Your task to perform on an android device: turn on javascript in the chrome app Image 0: 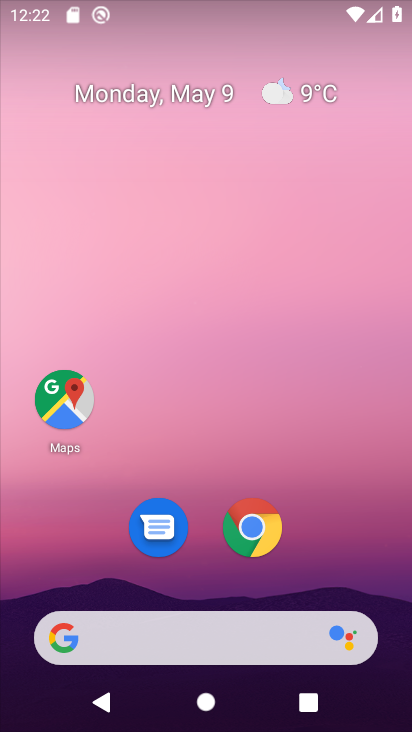
Step 0: click (260, 533)
Your task to perform on an android device: turn on javascript in the chrome app Image 1: 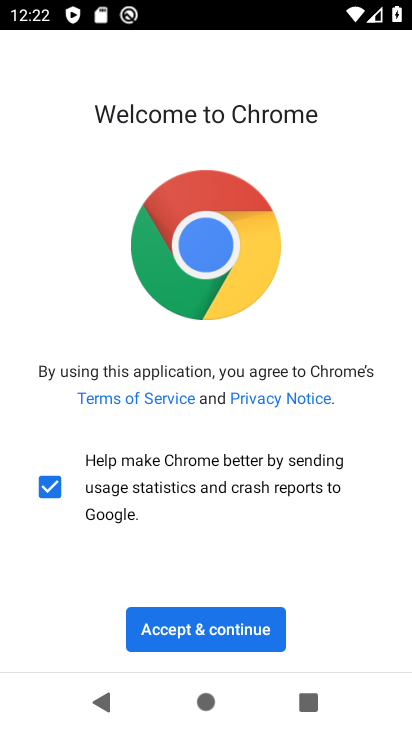
Step 1: click (218, 623)
Your task to perform on an android device: turn on javascript in the chrome app Image 2: 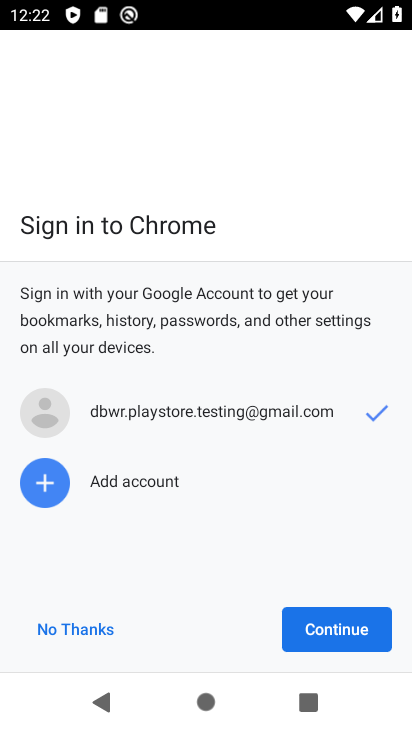
Step 2: click (318, 612)
Your task to perform on an android device: turn on javascript in the chrome app Image 3: 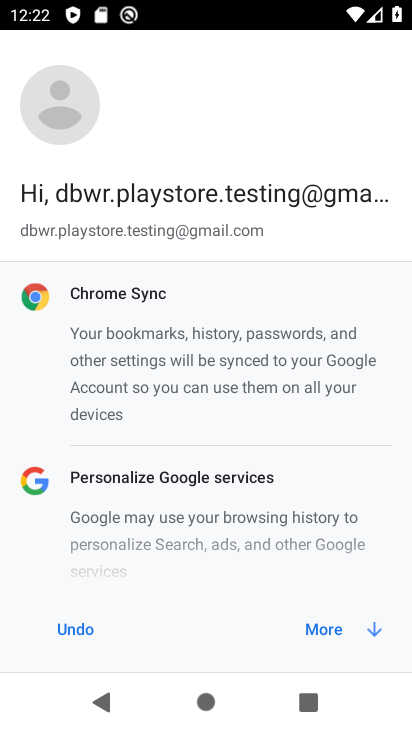
Step 3: click (324, 632)
Your task to perform on an android device: turn on javascript in the chrome app Image 4: 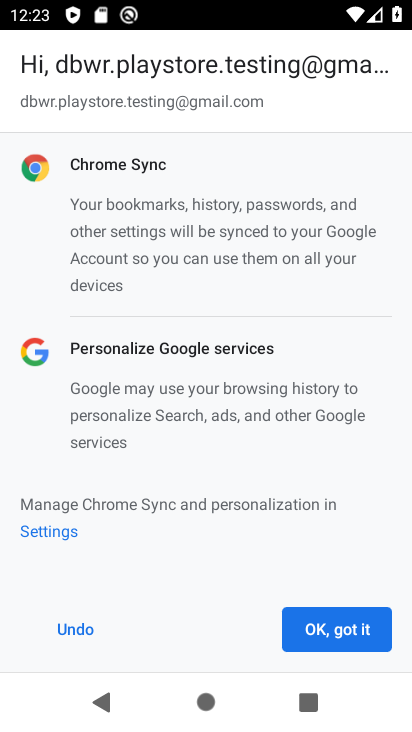
Step 4: click (327, 630)
Your task to perform on an android device: turn on javascript in the chrome app Image 5: 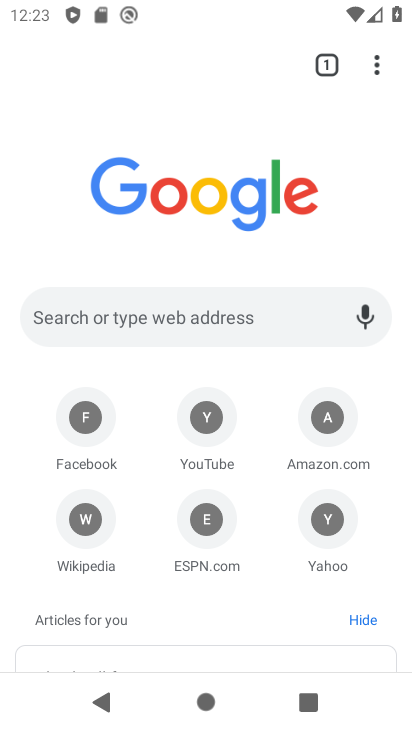
Step 5: drag from (377, 60) to (131, 536)
Your task to perform on an android device: turn on javascript in the chrome app Image 6: 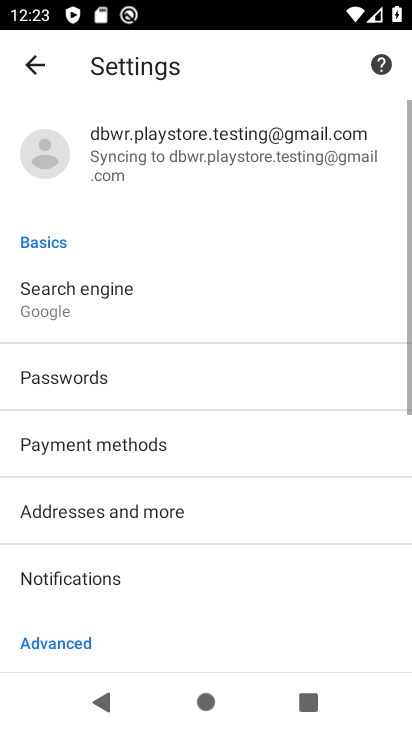
Step 6: drag from (128, 534) to (228, 14)
Your task to perform on an android device: turn on javascript in the chrome app Image 7: 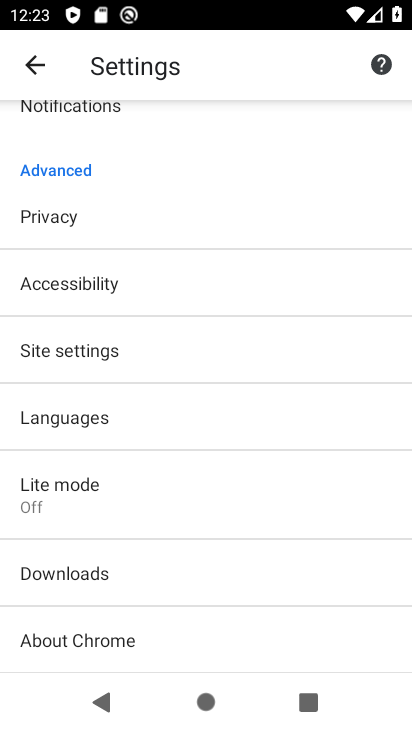
Step 7: click (85, 359)
Your task to perform on an android device: turn on javascript in the chrome app Image 8: 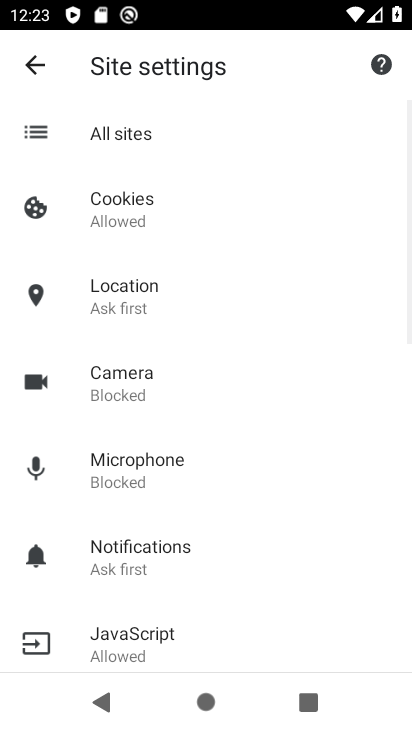
Step 8: click (137, 640)
Your task to perform on an android device: turn on javascript in the chrome app Image 9: 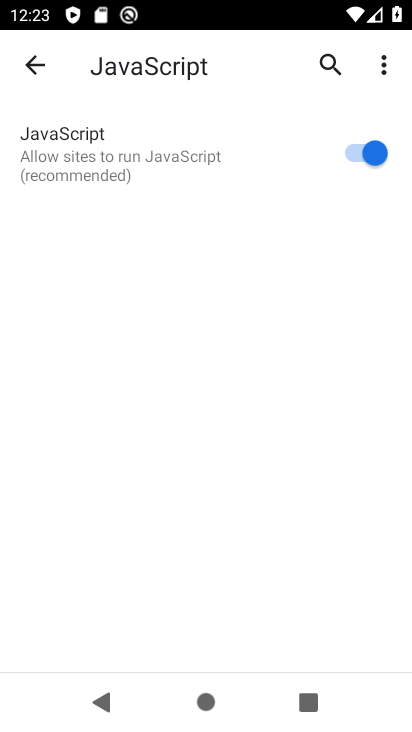
Step 9: task complete